Your task to perform on an android device: Check the news Image 0: 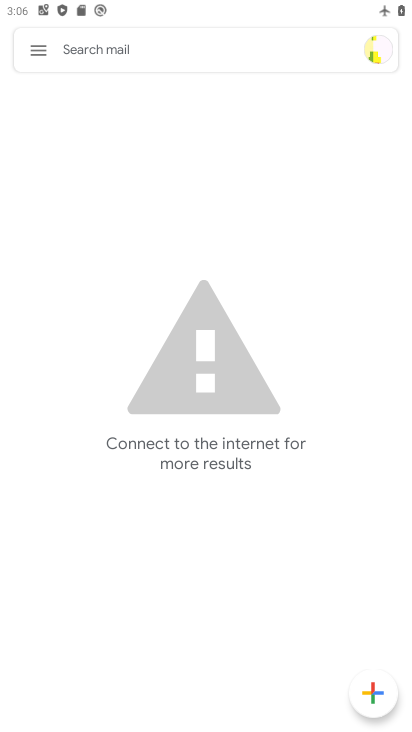
Step 0: press back button
Your task to perform on an android device: Check the news Image 1: 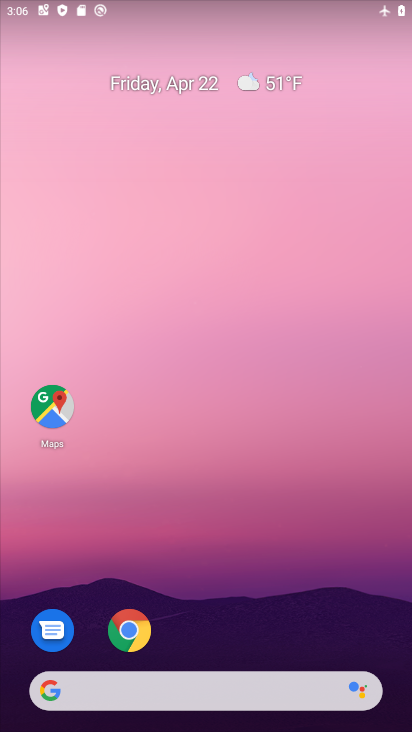
Step 1: drag from (235, 595) to (223, 53)
Your task to perform on an android device: Check the news Image 2: 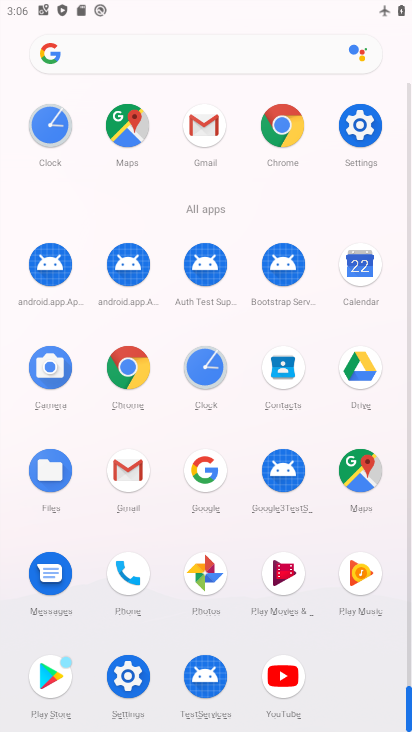
Step 2: drag from (8, 539) to (19, 293)
Your task to perform on an android device: Check the news Image 3: 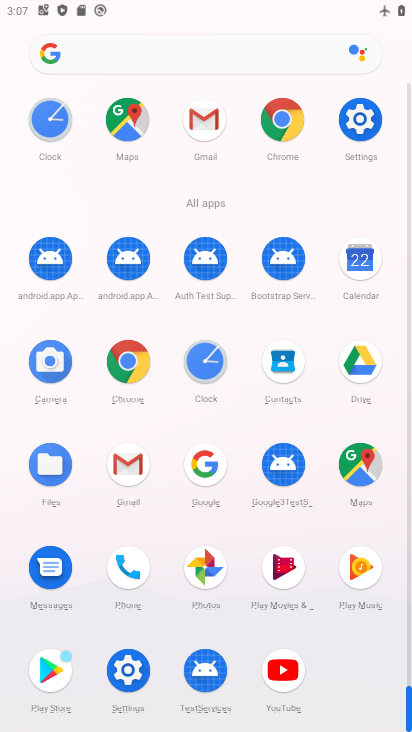
Step 3: click (281, 117)
Your task to perform on an android device: Check the news Image 4: 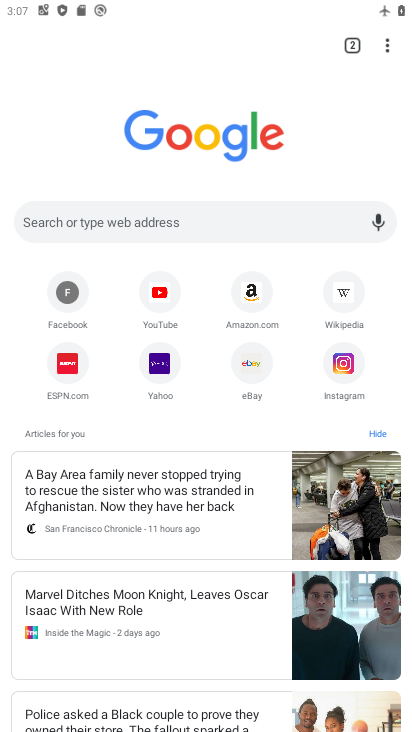
Step 4: click (186, 202)
Your task to perform on an android device: Check the news Image 5: 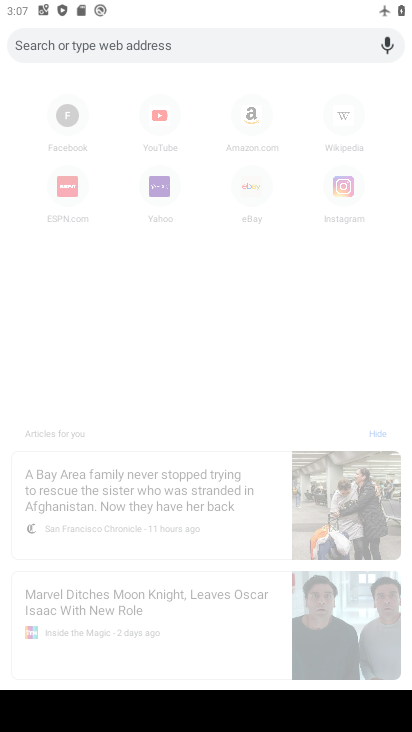
Step 5: type "Check the news"
Your task to perform on an android device: Check the news Image 6: 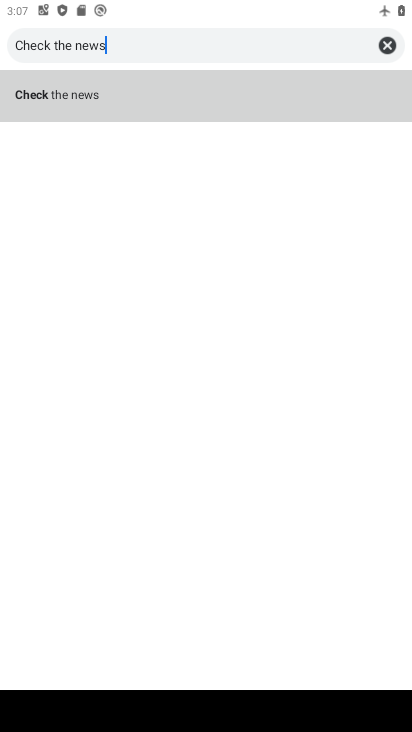
Step 6: type ""
Your task to perform on an android device: Check the news Image 7: 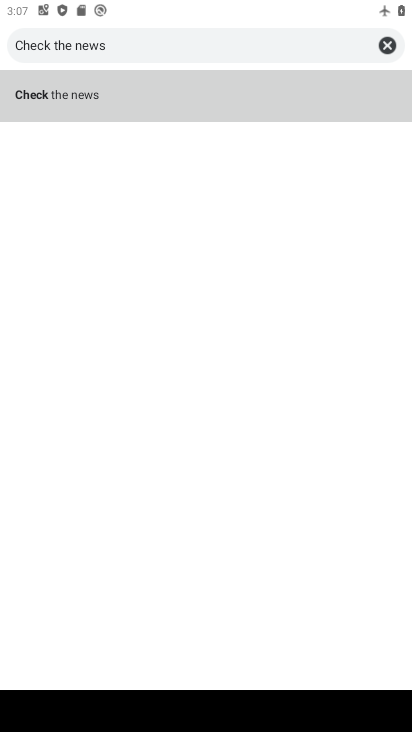
Step 7: click (84, 100)
Your task to perform on an android device: Check the news Image 8: 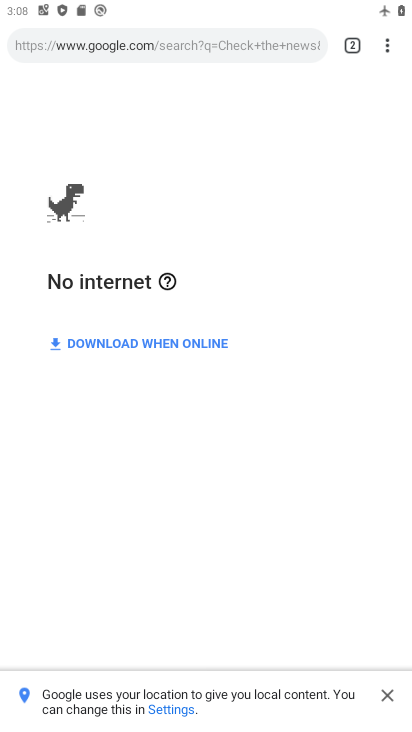
Step 8: task complete